Your task to perform on an android device: Open Google Chrome Image 0: 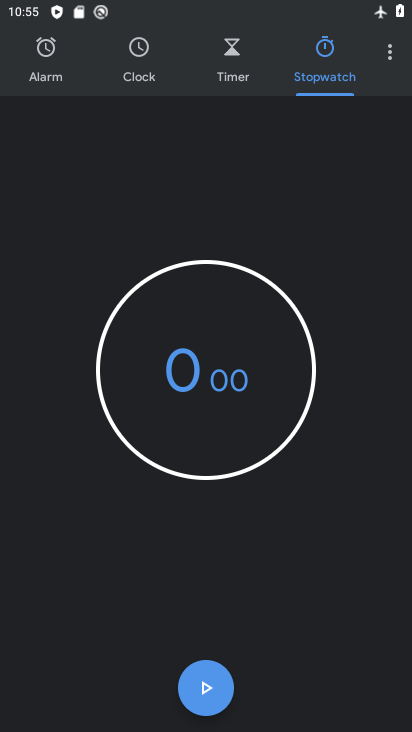
Step 0: press home button
Your task to perform on an android device: Open Google Chrome Image 1: 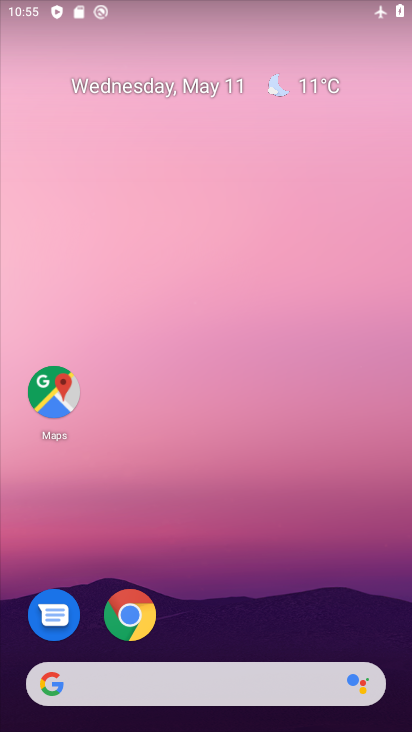
Step 1: click (126, 608)
Your task to perform on an android device: Open Google Chrome Image 2: 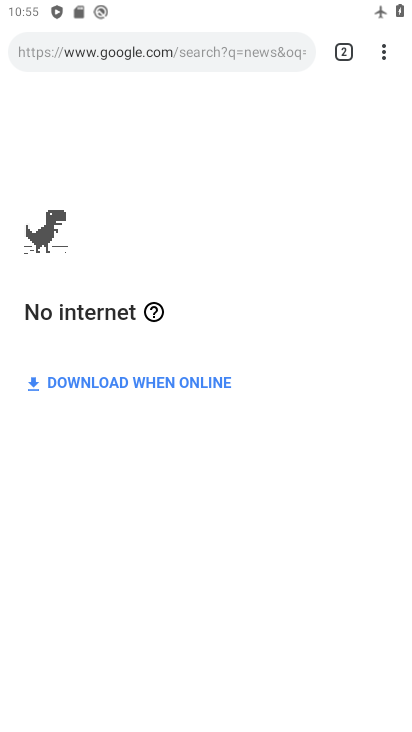
Step 2: task complete